Your task to perform on an android device: Go to Google Image 0: 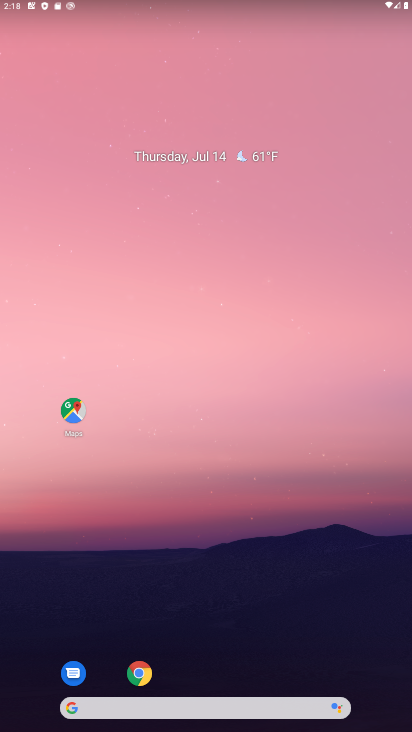
Step 0: click (168, 706)
Your task to perform on an android device: Go to Google Image 1: 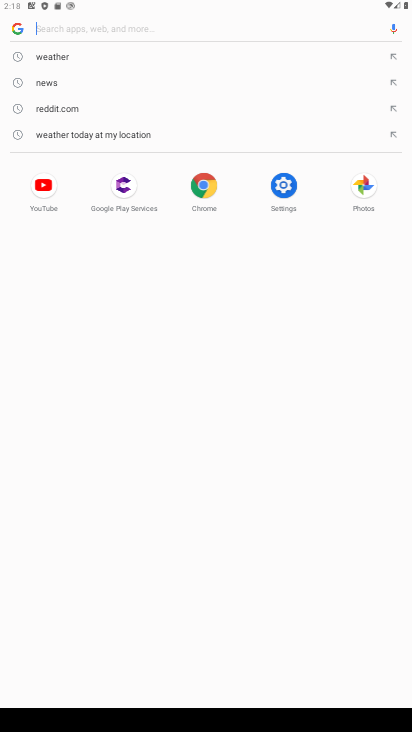
Step 1: task complete